Your task to perform on an android device: find photos in the google photos app Image 0: 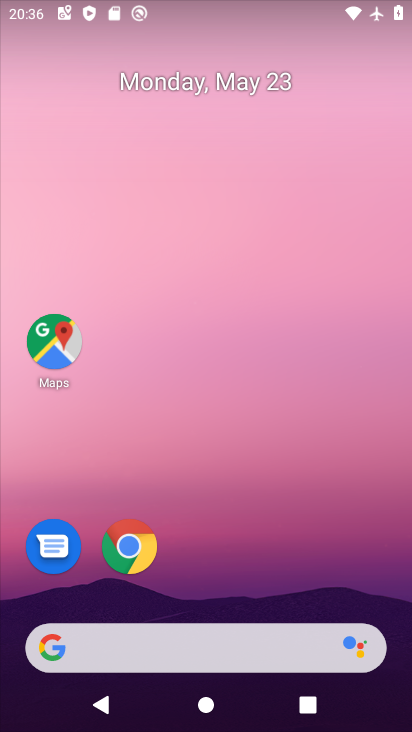
Step 0: drag from (385, 584) to (375, 192)
Your task to perform on an android device: find photos in the google photos app Image 1: 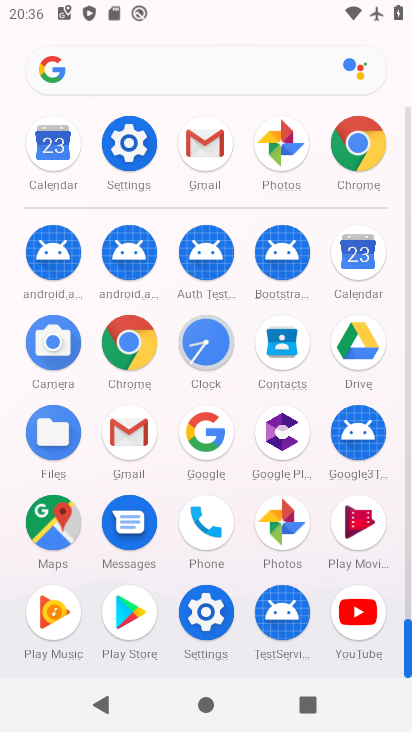
Step 1: click (280, 540)
Your task to perform on an android device: find photos in the google photos app Image 2: 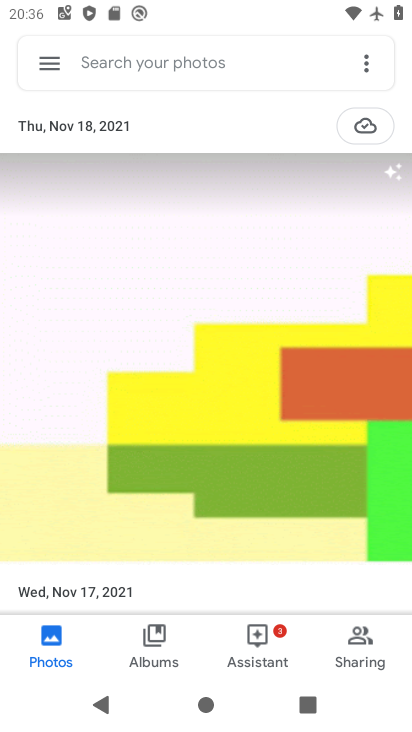
Step 2: click (205, 404)
Your task to perform on an android device: find photos in the google photos app Image 3: 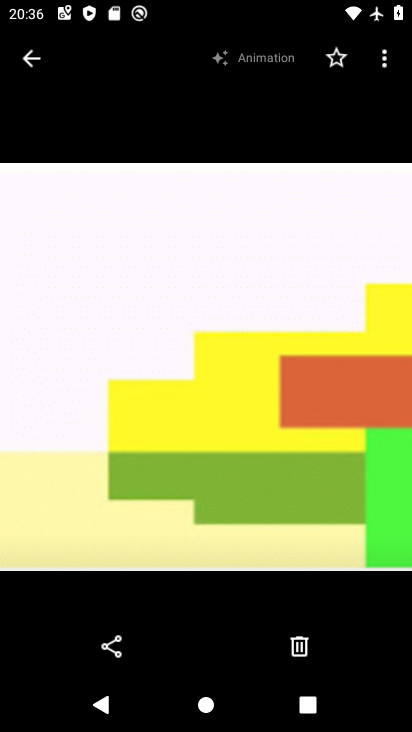
Step 3: task complete